Your task to perform on an android device: Clear all items from cart on amazon.com. Add "macbook pro 15 inch" to the cart on amazon.com Image 0: 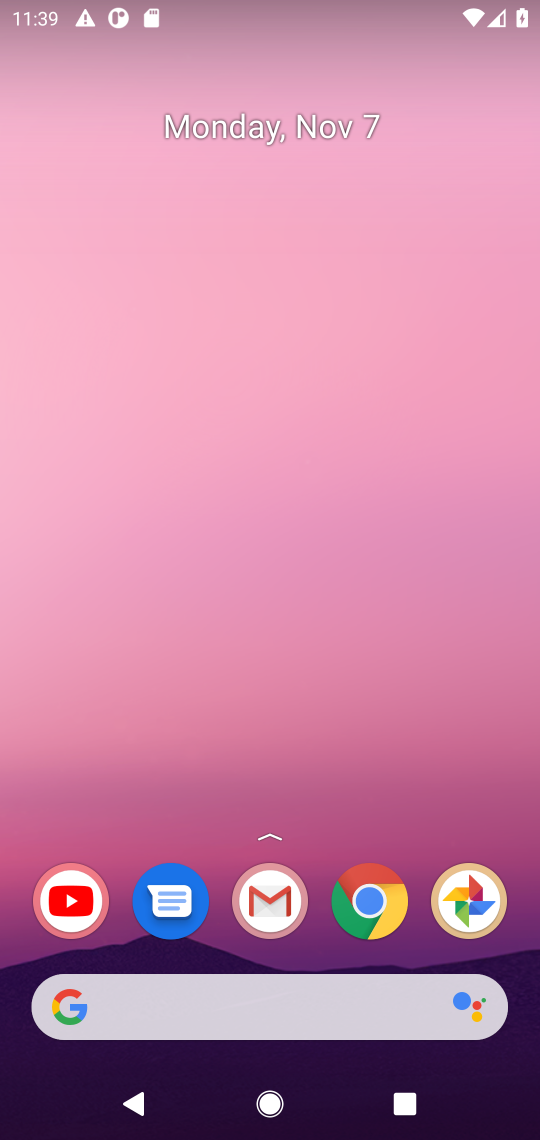
Step 0: click (396, 913)
Your task to perform on an android device: Clear all items from cart on amazon.com. Add "macbook pro 15 inch" to the cart on amazon.com Image 1: 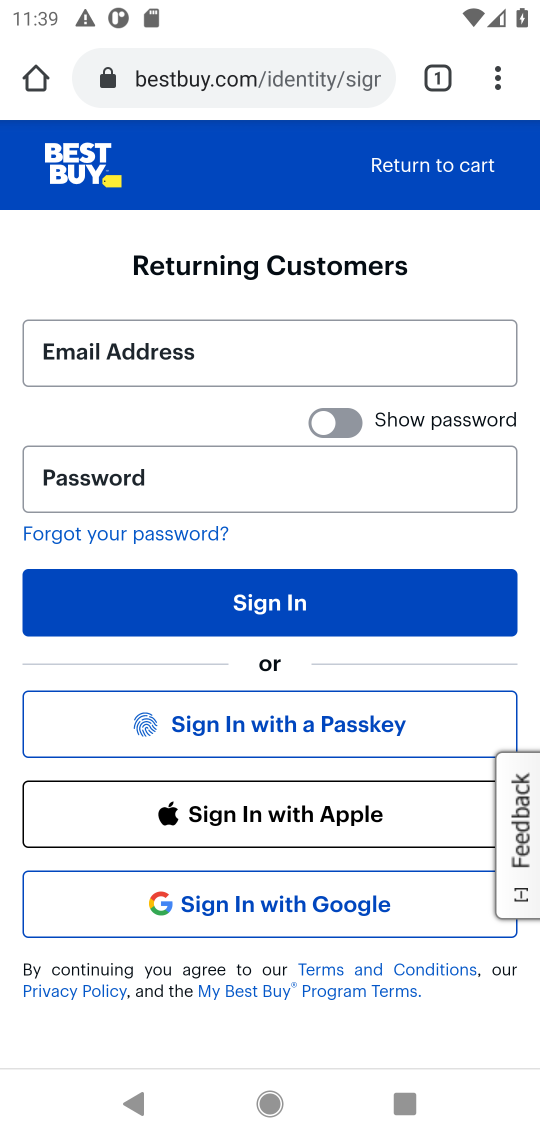
Step 1: click (253, 66)
Your task to perform on an android device: Clear all items from cart on amazon.com. Add "macbook pro 15 inch" to the cart on amazon.com Image 2: 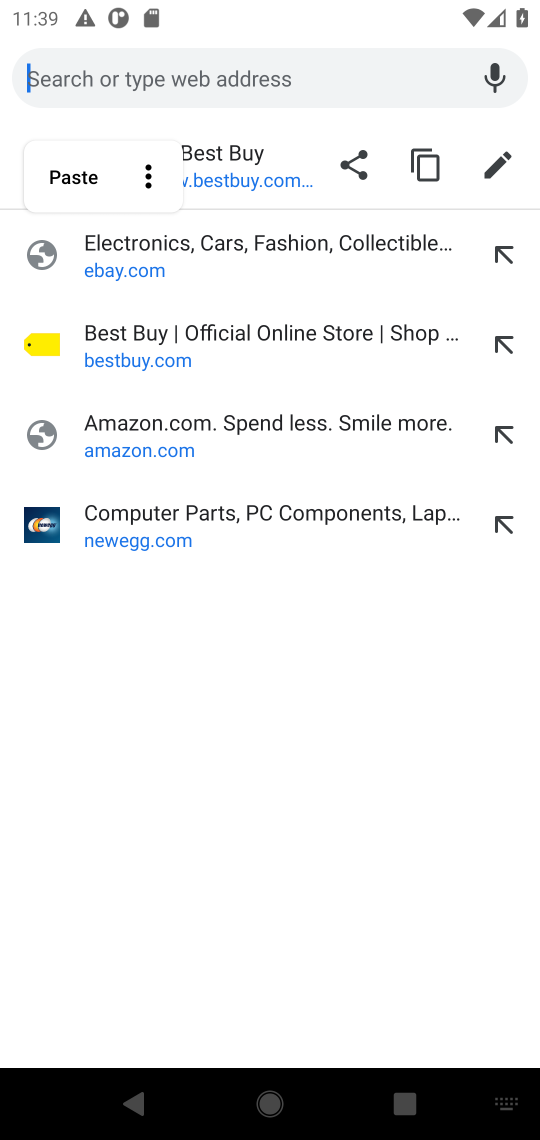
Step 2: type "amazon.com"
Your task to perform on an android device: Clear all items from cart on amazon.com. Add "macbook pro 15 inch" to the cart on amazon.com Image 3: 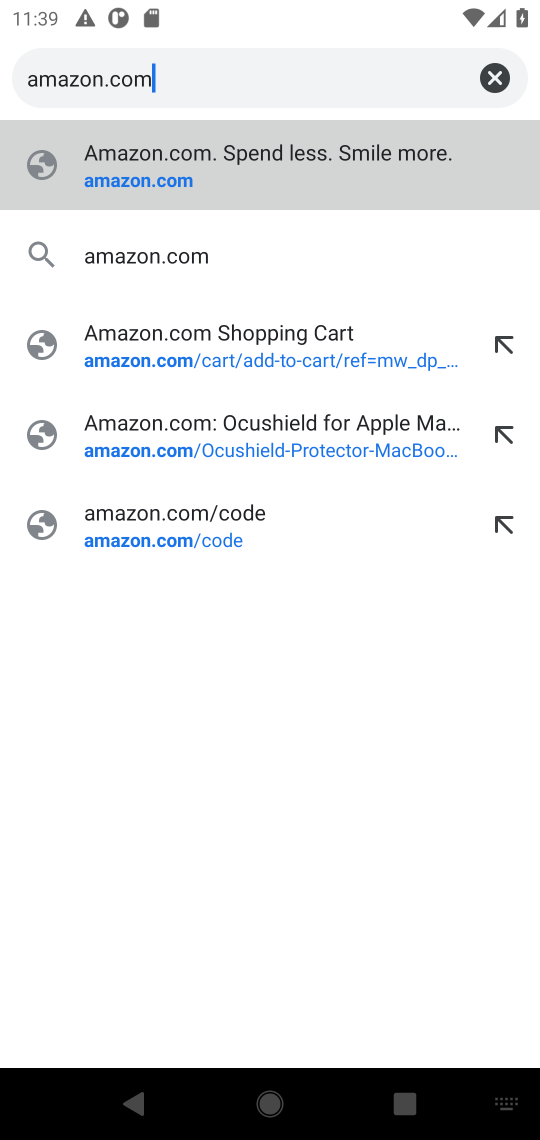
Step 3: click (274, 185)
Your task to perform on an android device: Clear all items from cart on amazon.com. Add "macbook pro 15 inch" to the cart on amazon.com Image 4: 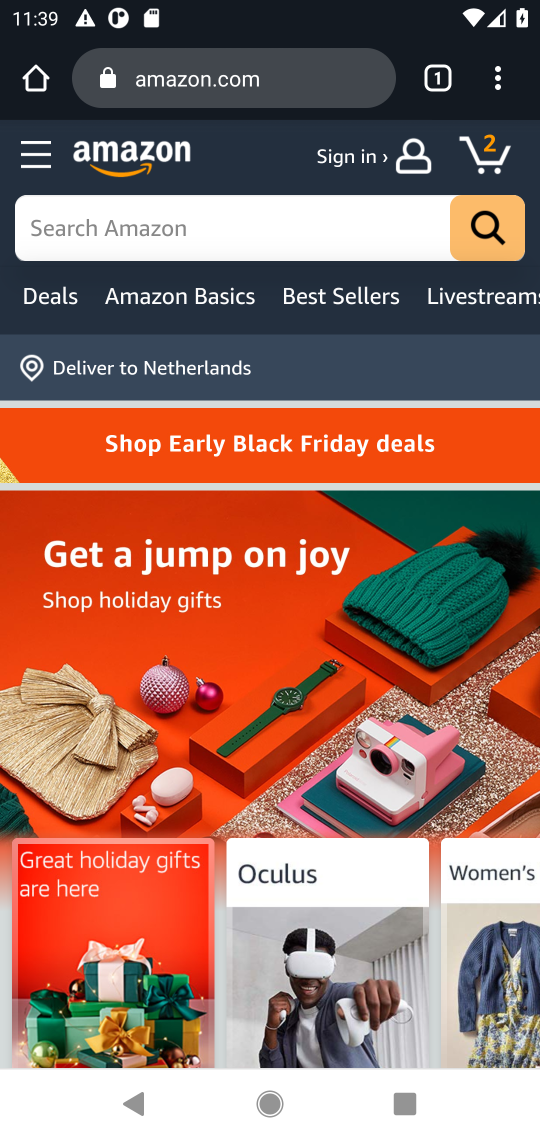
Step 4: click (144, 236)
Your task to perform on an android device: Clear all items from cart on amazon.com. Add "macbook pro 15 inch" to the cart on amazon.com Image 5: 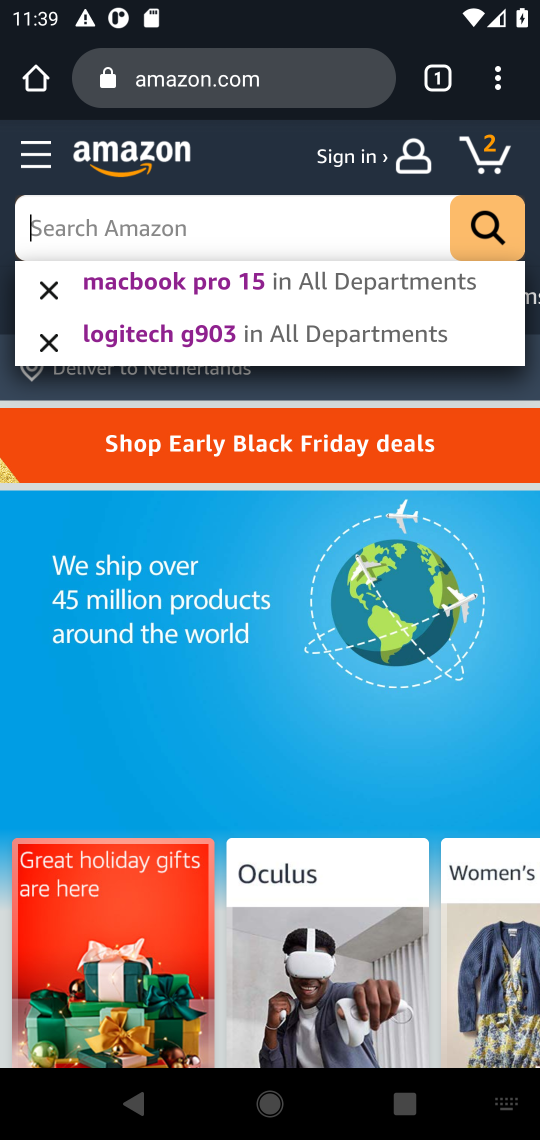
Step 5: type "macbook pro 15"
Your task to perform on an android device: Clear all items from cart on amazon.com. Add "macbook pro 15 inch" to the cart on amazon.com Image 6: 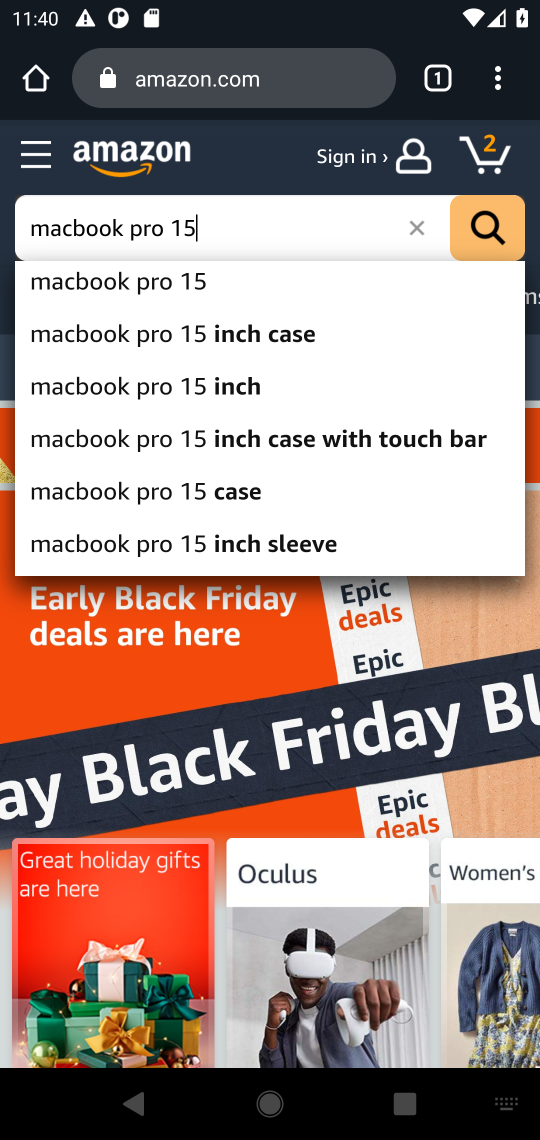
Step 6: click (294, 276)
Your task to perform on an android device: Clear all items from cart on amazon.com. Add "macbook pro 15 inch" to the cart on amazon.com Image 7: 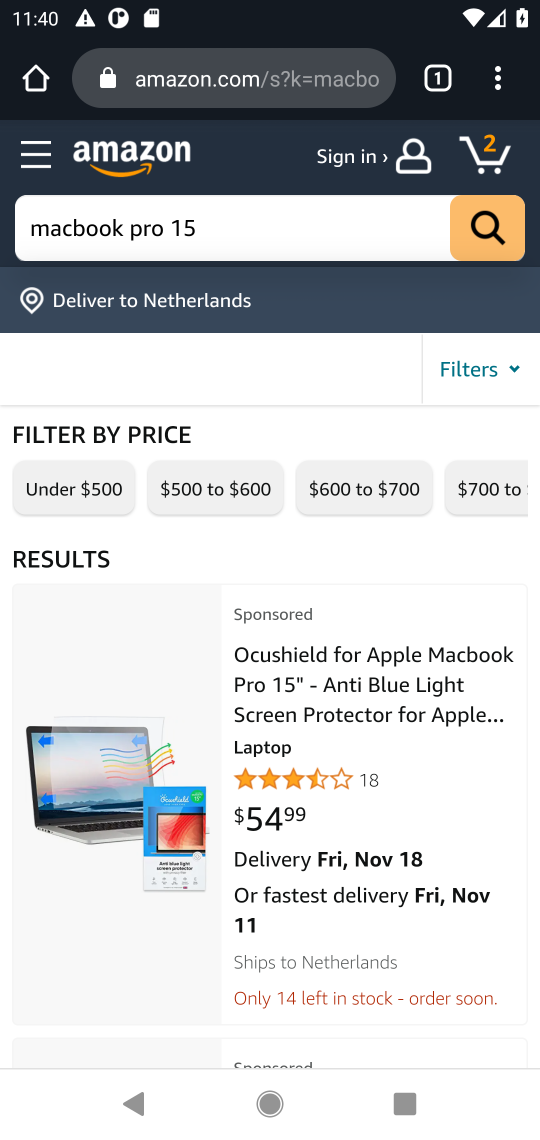
Step 7: click (281, 698)
Your task to perform on an android device: Clear all items from cart on amazon.com. Add "macbook pro 15 inch" to the cart on amazon.com Image 8: 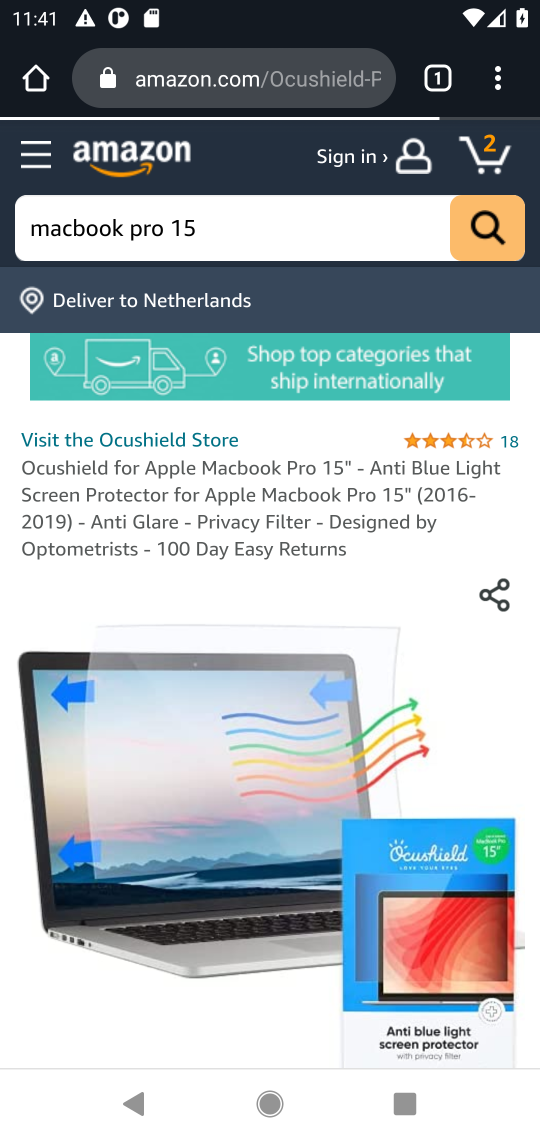
Step 8: drag from (187, 807) to (143, 421)
Your task to perform on an android device: Clear all items from cart on amazon.com. Add "macbook pro 15 inch" to the cart on amazon.com Image 9: 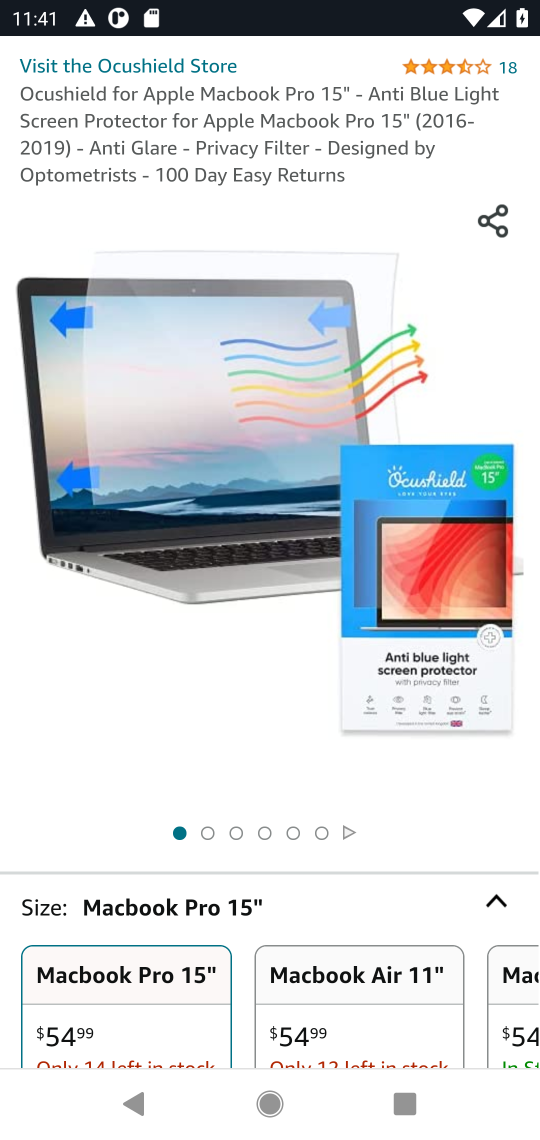
Step 9: drag from (338, 810) to (282, 172)
Your task to perform on an android device: Clear all items from cart on amazon.com. Add "macbook pro 15 inch" to the cart on amazon.com Image 10: 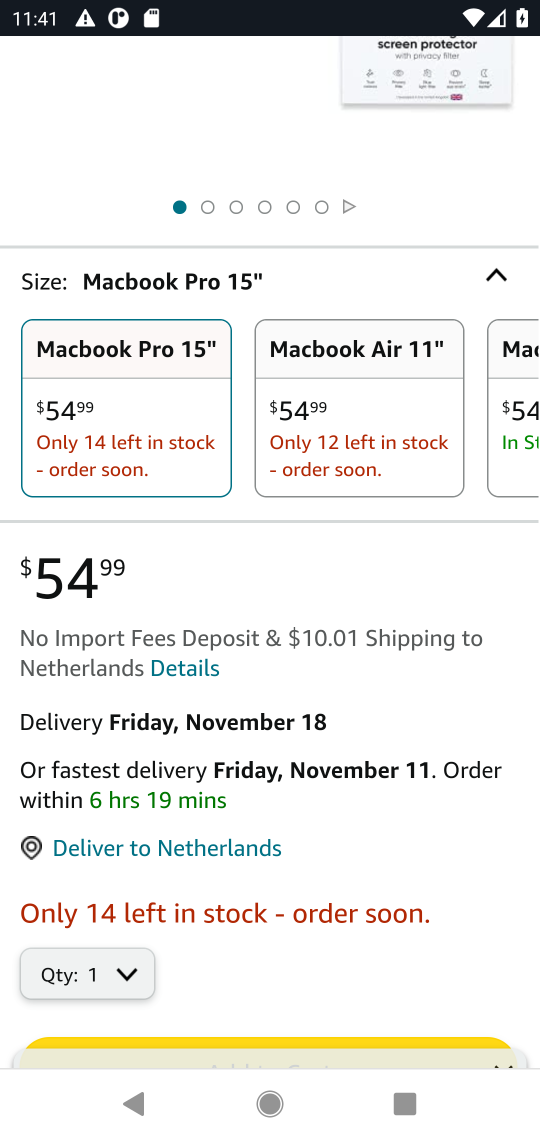
Step 10: drag from (286, 1022) to (302, 393)
Your task to perform on an android device: Clear all items from cart on amazon.com. Add "macbook pro 15 inch" to the cart on amazon.com Image 11: 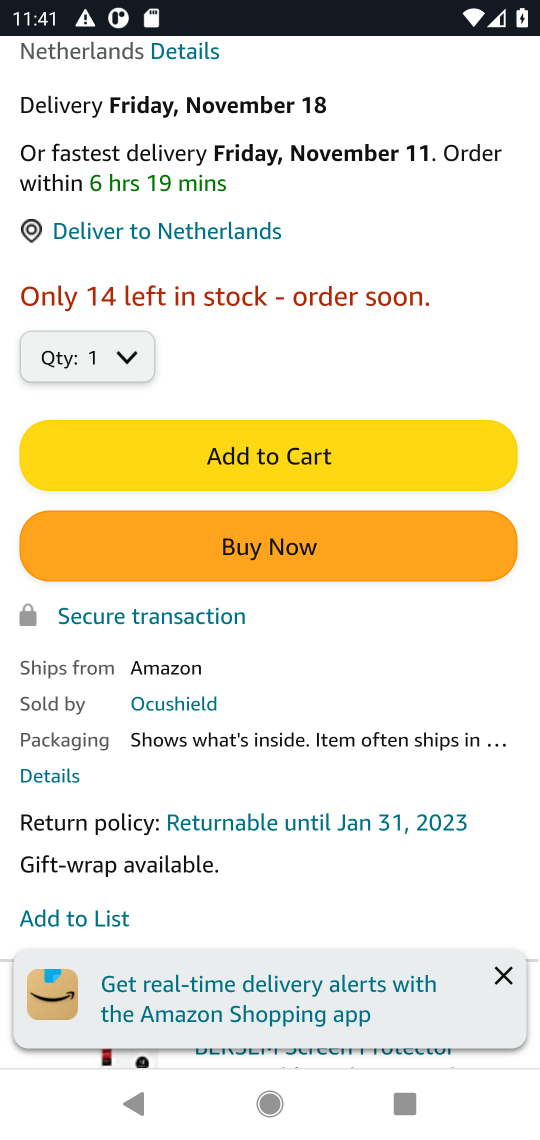
Step 11: click (276, 457)
Your task to perform on an android device: Clear all items from cart on amazon.com. Add "macbook pro 15 inch" to the cart on amazon.com Image 12: 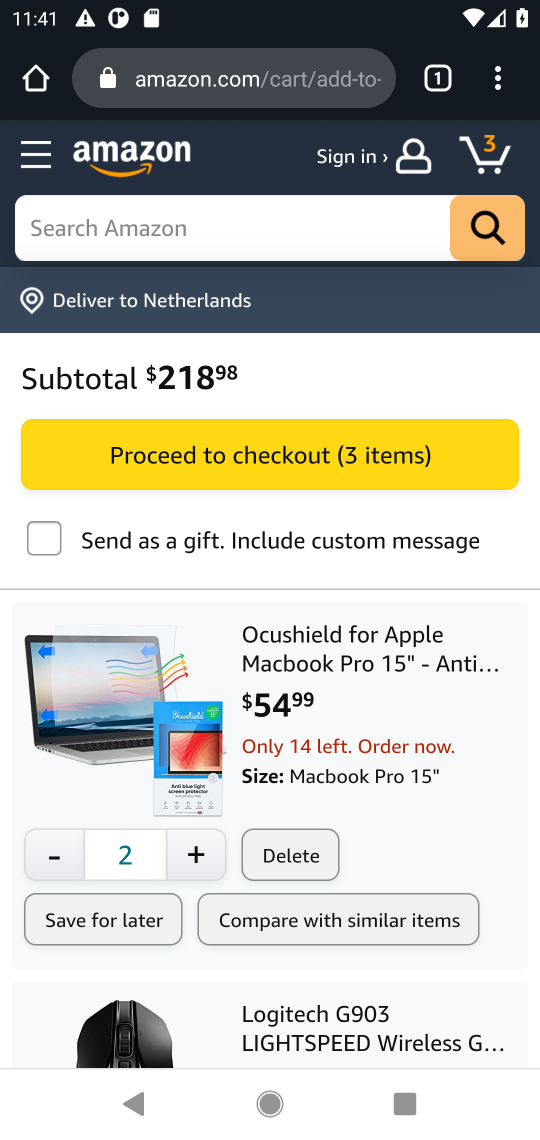
Step 12: click (370, 442)
Your task to perform on an android device: Clear all items from cart on amazon.com. Add "macbook pro 15 inch" to the cart on amazon.com Image 13: 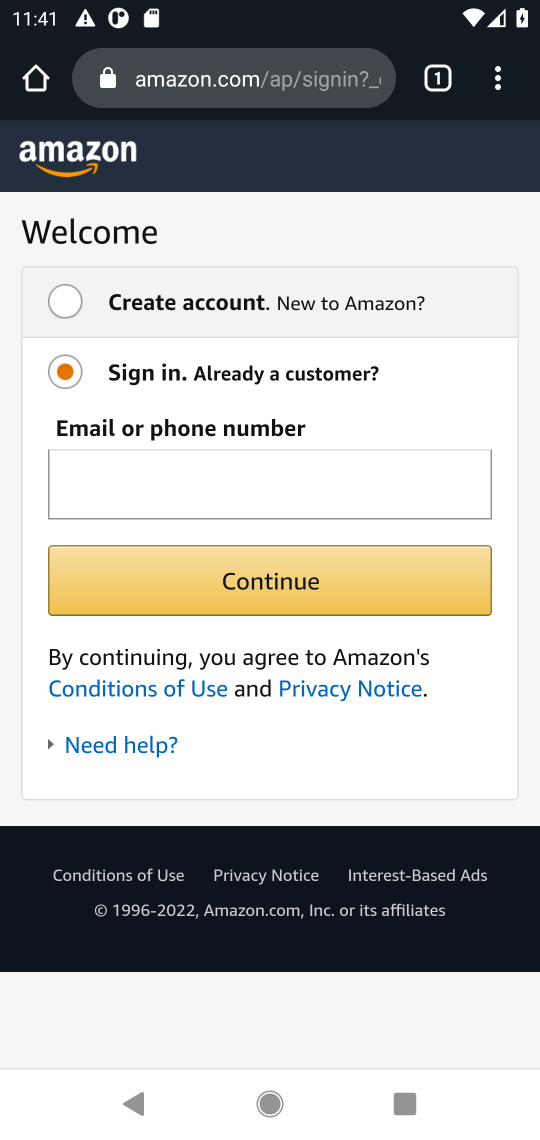
Step 13: click (419, 621)
Your task to perform on an android device: Clear all items from cart on amazon.com. Add "macbook pro 15 inch" to the cart on amazon.com Image 14: 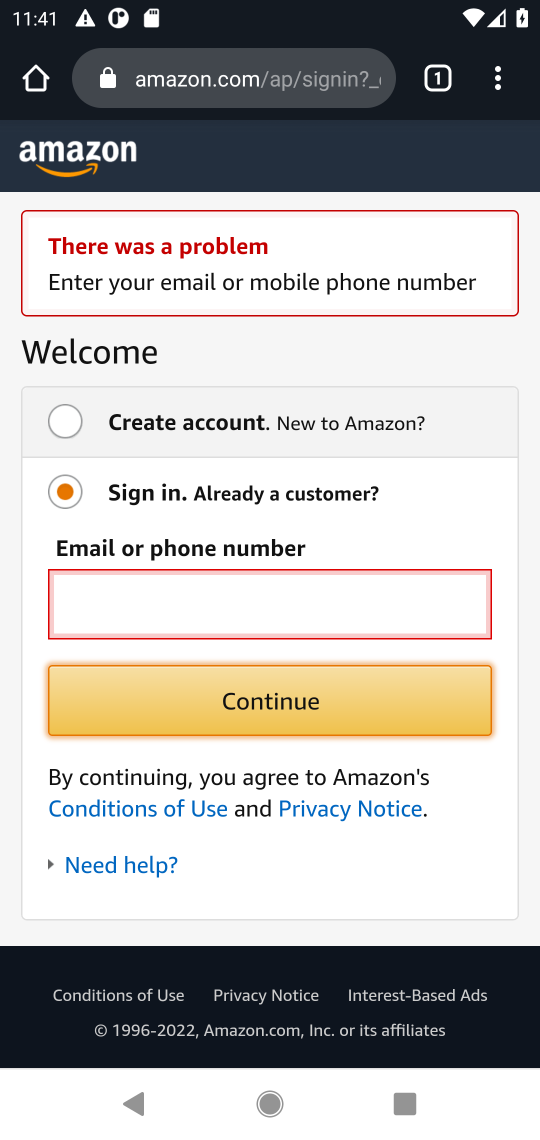
Step 14: task complete